Your task to perform on an android device: Open maps Image 0: 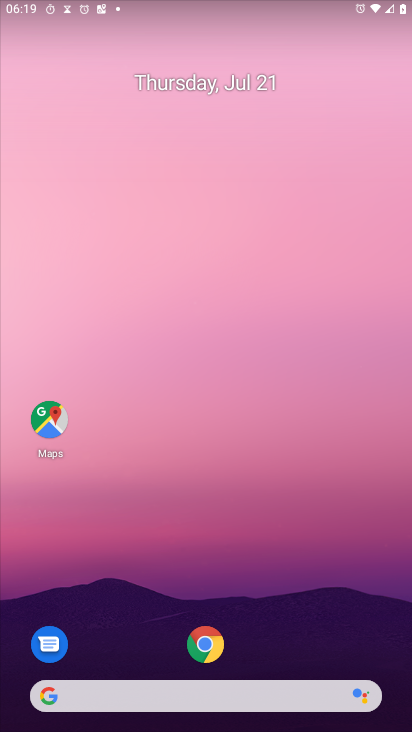
Step 0: press home button
Your task to perform on an android device: Open maps Image 1: 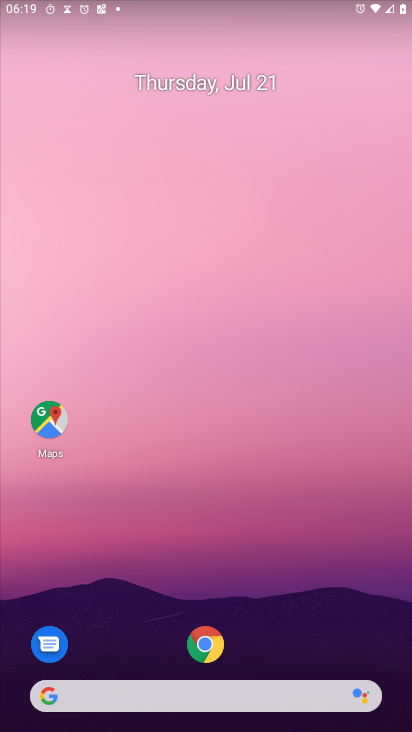
Step 1: click (39, 419)
Your task to perform on an android device: Open maps Image 2: 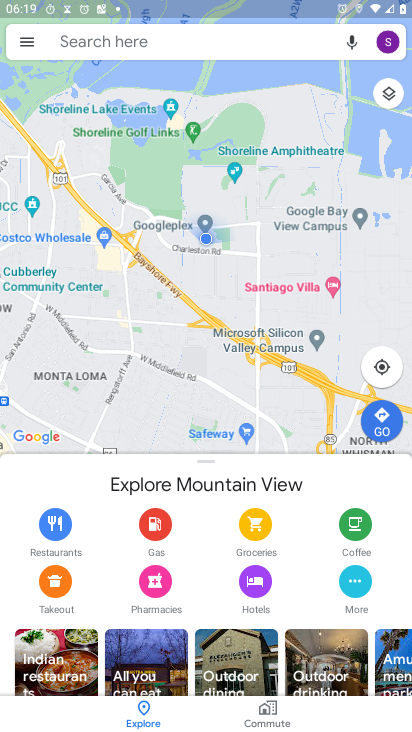
Step 2: task complete